Your task to perform on an android device: When is my next appointment? Image 0: 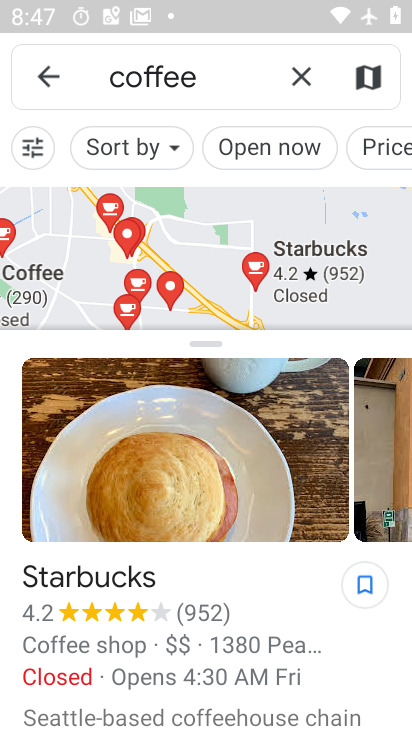
Step 0: press home button
Your task to perform on an android device: When is my next appointment? Image 1: 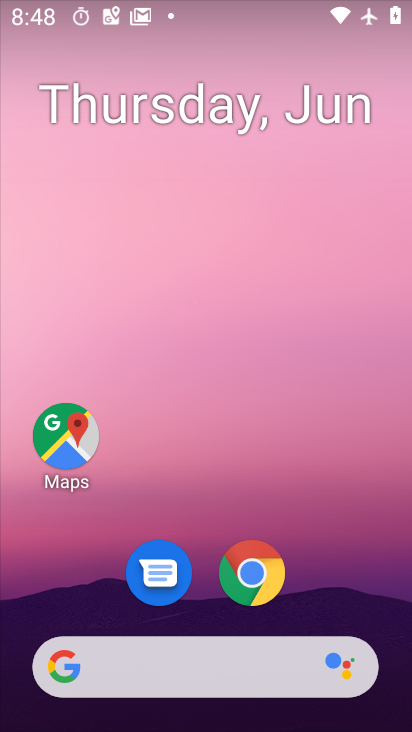
Step 1: drag from (284, 481) to (314, 280)
Your task to perform on an android device: When is my next appointment? Image 2: 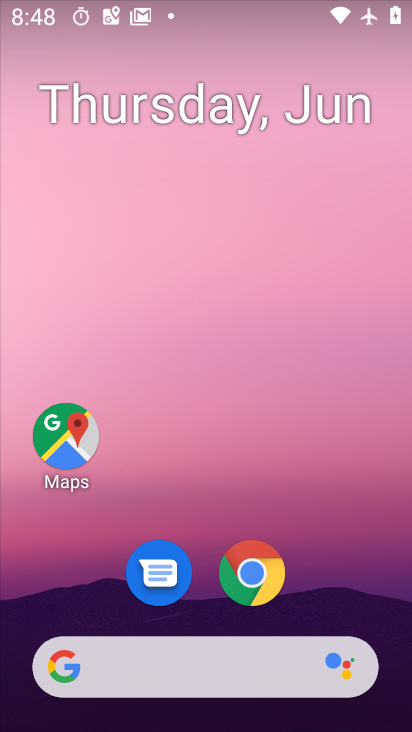
Step 2: drag from (278, 616) to (288, 146)
Your task to perform on an android device: When is my next appointment? Image 3: 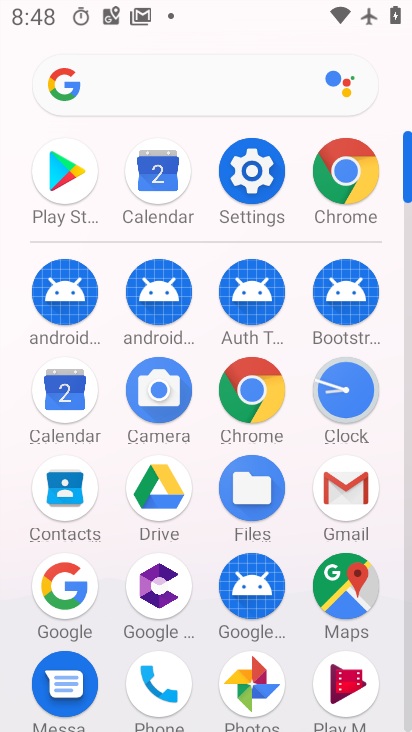
Step 3: click (73, 388)
Your task to perform on an android device: When is my next appointment? Image 4: 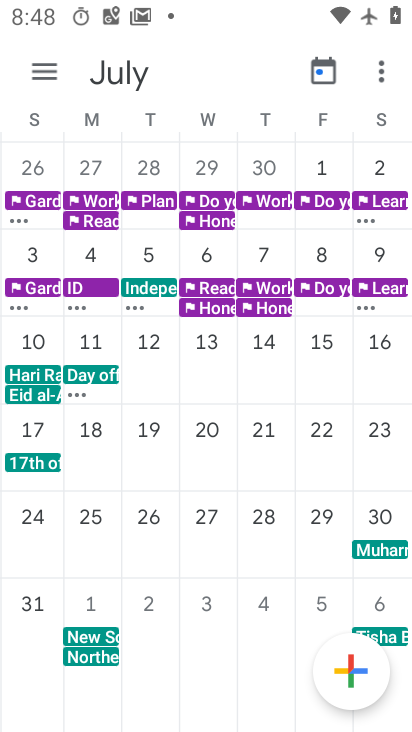
Step 4: drag from (63, 210) to (408, 270)
Your task to perform on an android device: When is my next appointment? Image 5: 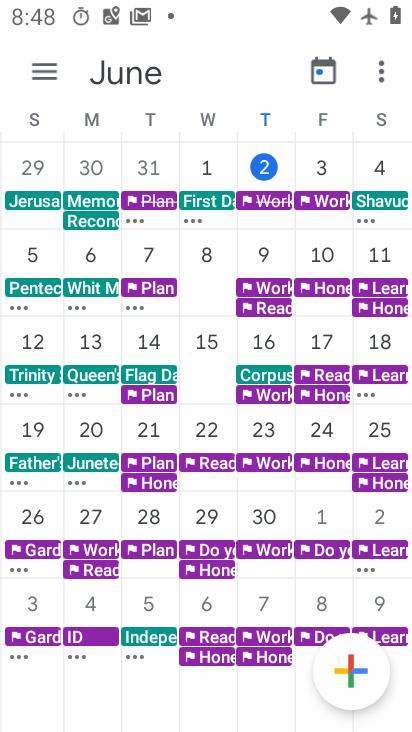
Step 5: click (375, 166)
Your task to perform on an android device: When is my next appointment? Image 6: 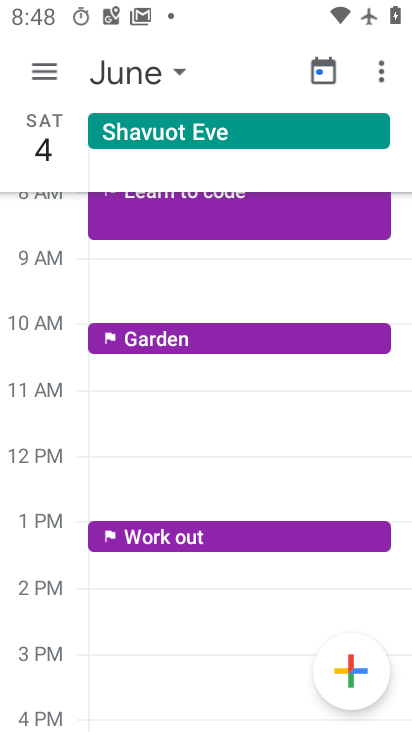
Step 6: task complete